Your task to perform on an android device: Do I have any events this weekend? Image 0: 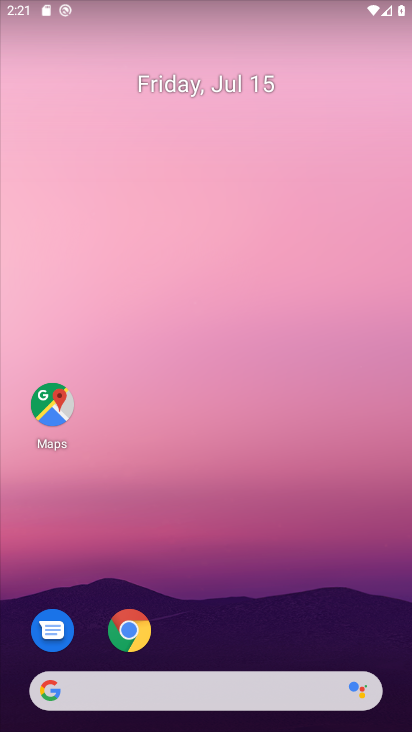
Step 0: drag from (299, 582) to (299, 39)
Your task to perform on an android device: Do I have any events this weekend? Image 1: 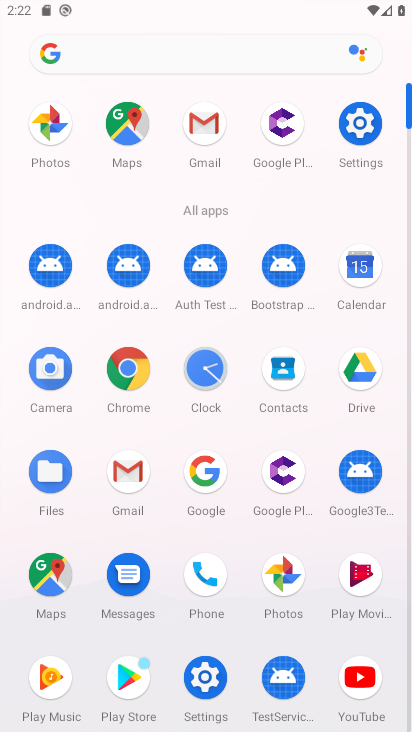
Step 1: click (369, 262)
Your task to perform on an android device: Do I have any events this weekend? Image 2: 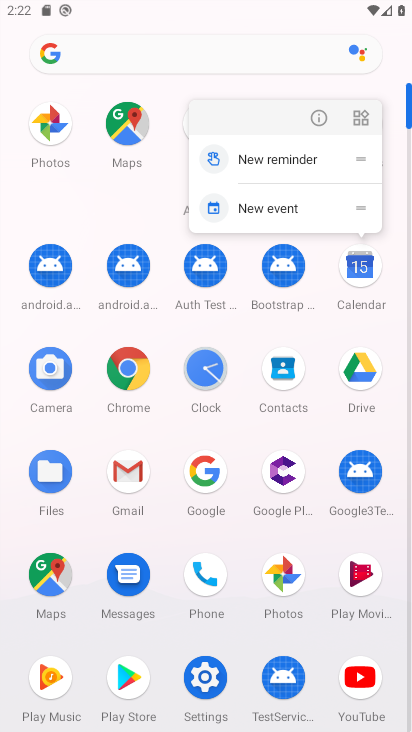
Step 2: click (356, 278)
Your task to perform on an android device: Do I have any events this weekend? Image 3: 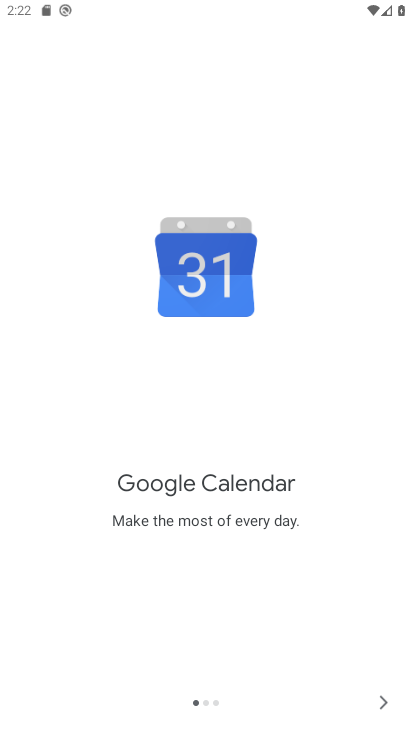
Step 3: click (380, 708)
Your task to perform on an android device: Do I have any events this weekend? Image 4: 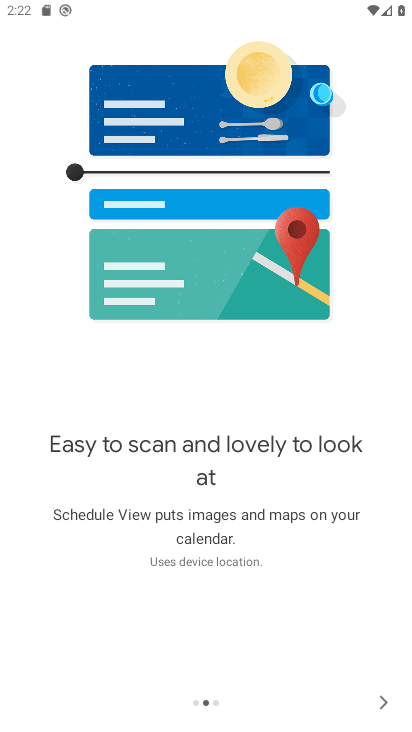
Step 4: click (374, 695)
Your task to perform on an android device: Do I have any events this weekend? Image 5: 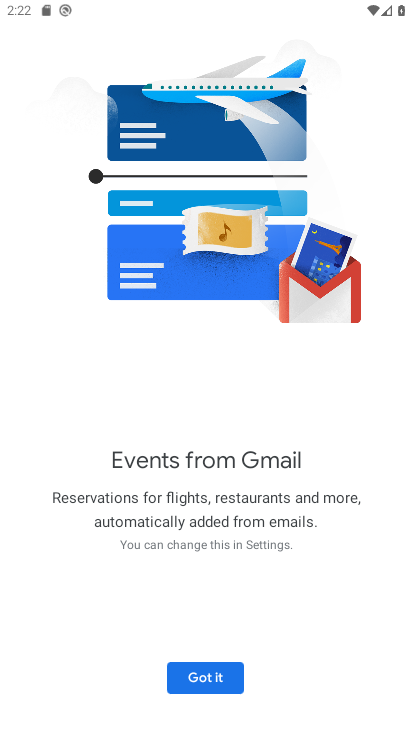
Step 5: click (187, 667)
Your task to perform on an android device: Do I have any events this weekend? Image 6: 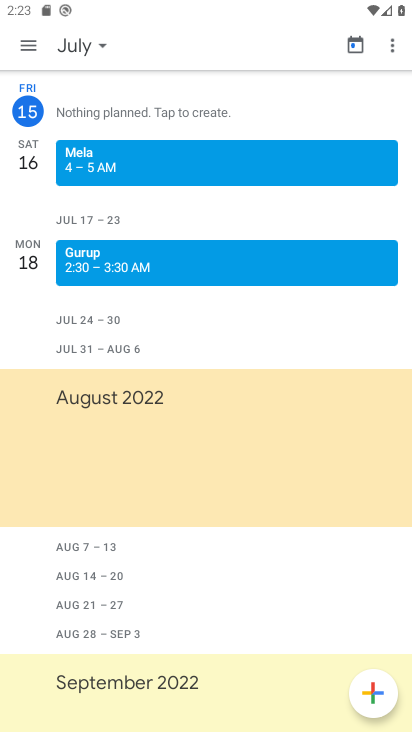
Step 6: click (84, 46)
Your task to perform on an android device: Do I have any events this weekend? Image 7: 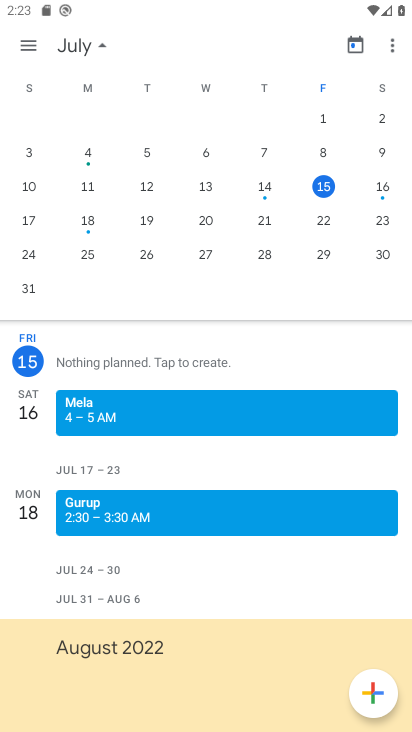
Step 7: task complete